Your task to perform on an android device: move a message to another label in the gmail app Image 0: 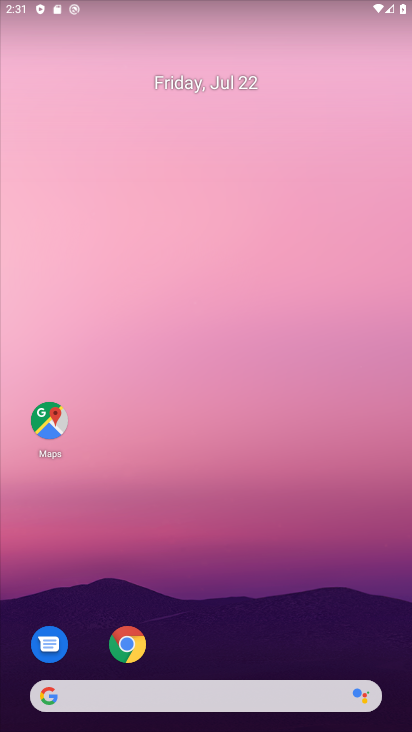
Step 0: press home button
Your task to perform on an android device: move a message to another label in the gmail app Image 1: 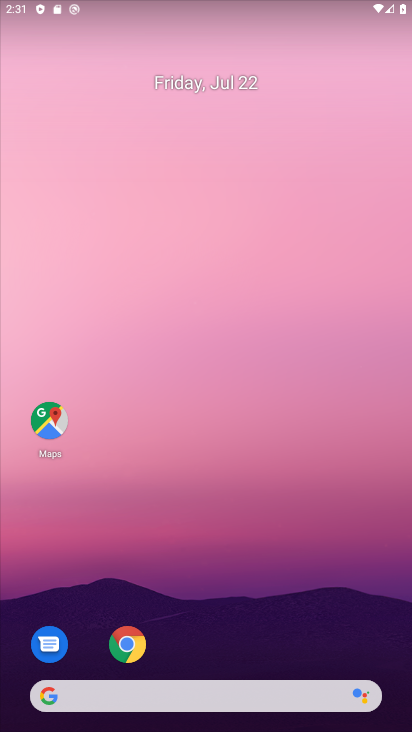
Step 1: drag from (220, 652) to (254, 193)
Your task to perform on an android device: move a message to another label in the gmail app Image 2: 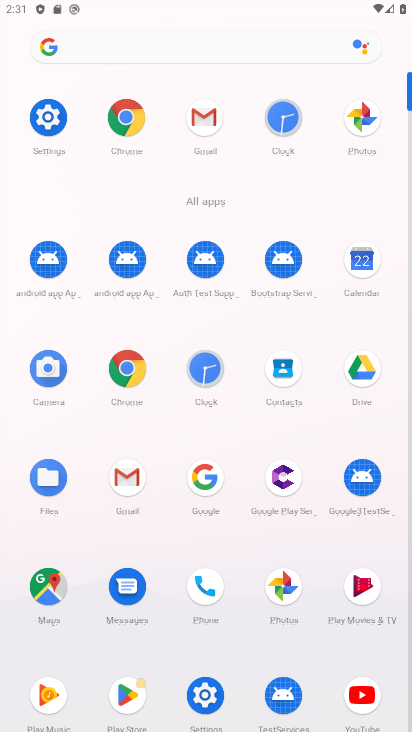
Step 2: click (204, 117)
Your task to perform on an android device: move a message to another label in the gmail app Image 3: 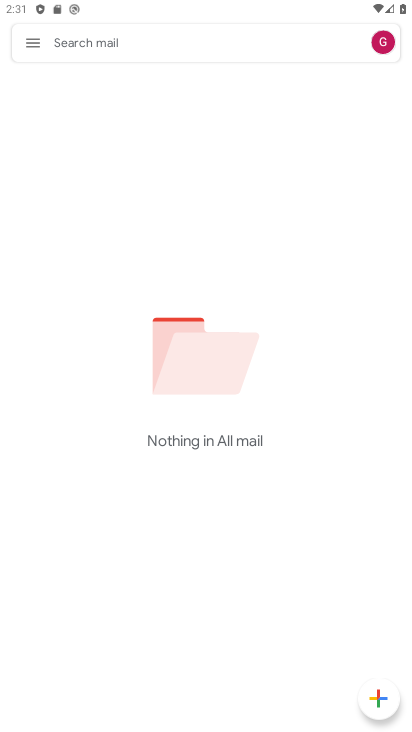
Step 3: click (31, 47)
Your task to perform on an android device: move a message to another label in the gmail app Image 4: 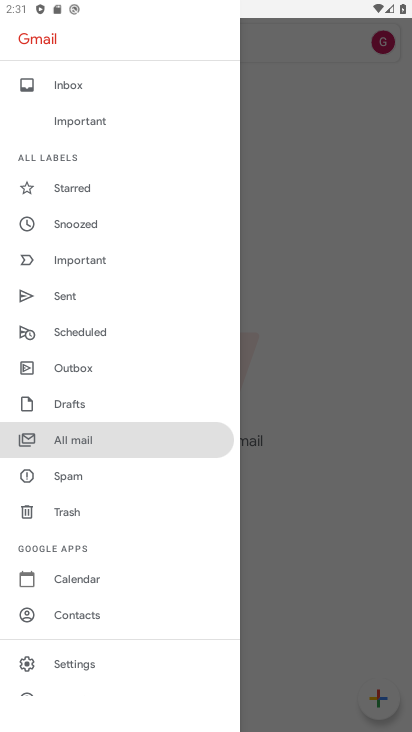
Step 4: click (97, 439)
Your task to perform on an android device: move a message to another label in the gmail app Image 5: 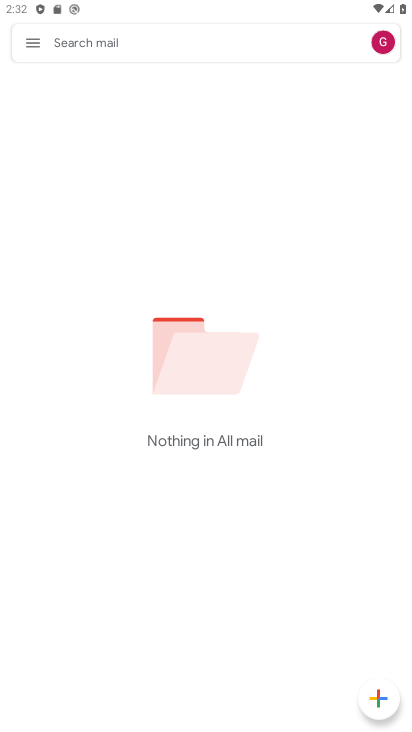
Step 5: task complete